Your task to perform on an android device: What's the weather going to be this weekend? Image 0: 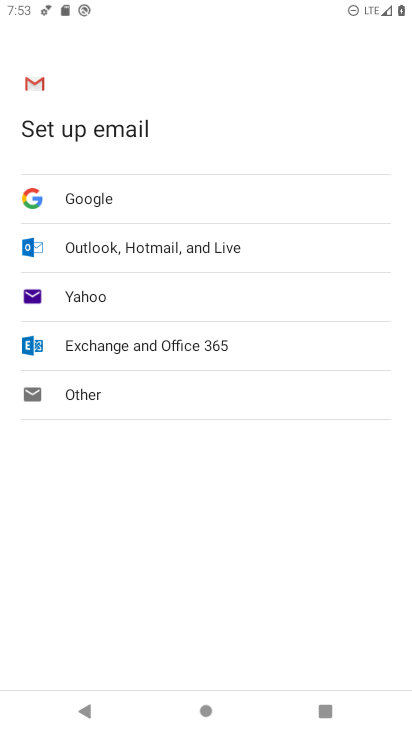
Step 0: press home button
Your task to perform on an android device: What's the weather going to be this weekend? Image 1: 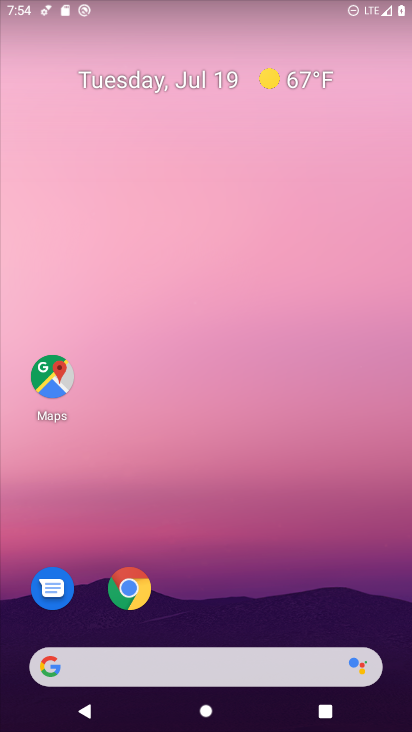
Step 1: click (198, 665)
Your task to perform on an android device: What's the weather going to be this weekend? Image 2: 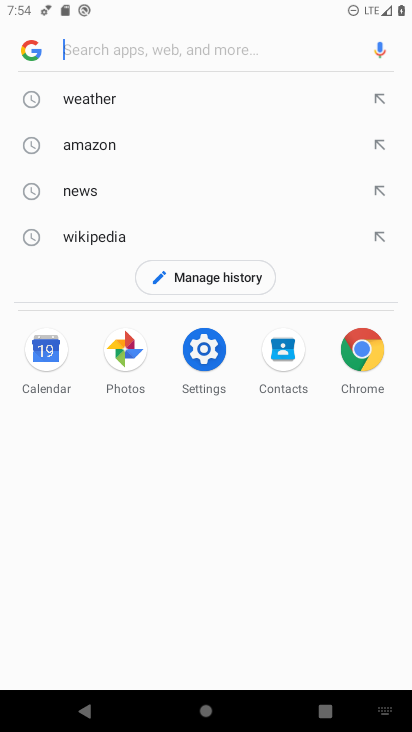
Step 2: click (116, 93)
Your task to perform on an android device: What's the weather going to be this weekend? Image 3: 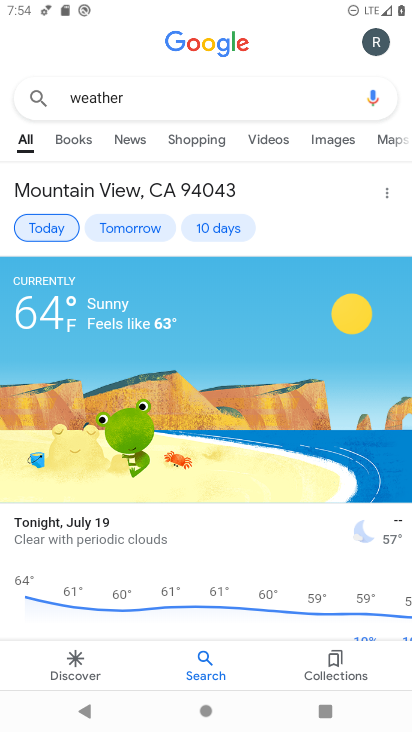
Step 3: click (232, 221)
Your task to perform on an android device: What's the weather going to be this weekend? Image 4: 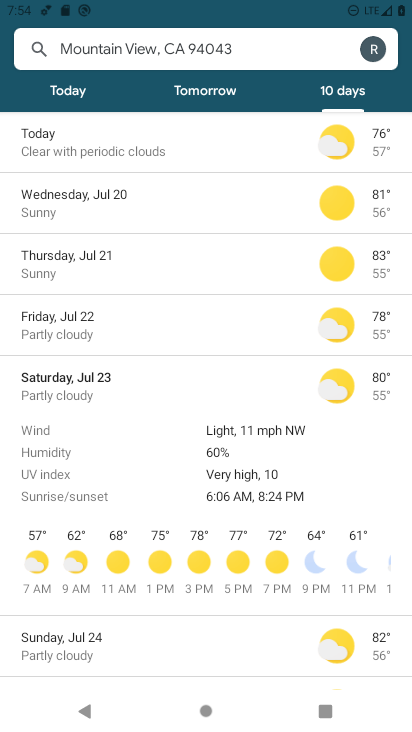
Step 4: task complete